Your task to perform on an android device: turn on the 24-hour format for clock Image 0: 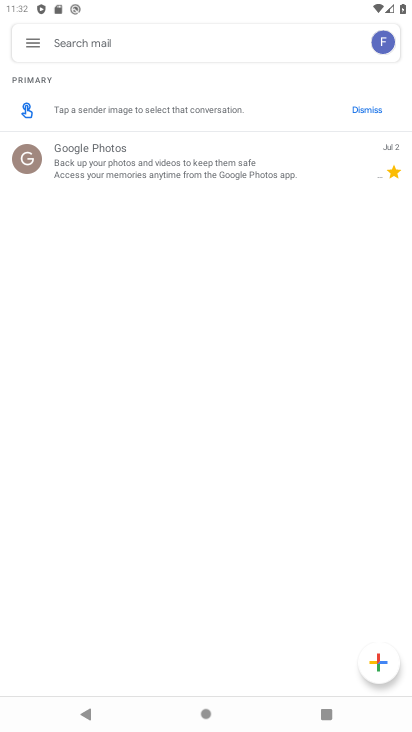
Step 0: press home button
Your task to perform on an android device: turn on the 24-hour format for clock Image 1: 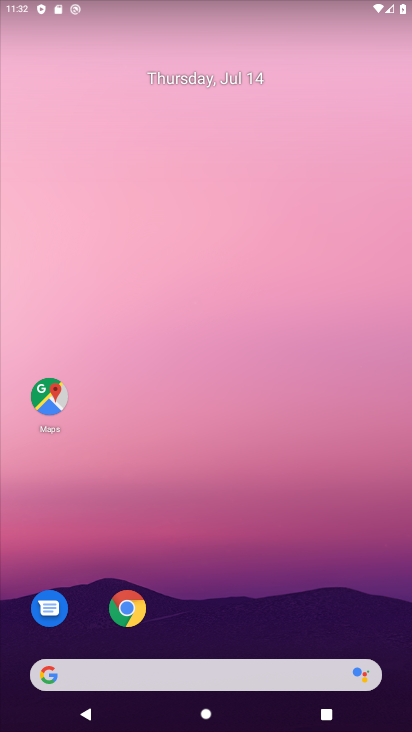
Step 1: drag from (15, 706) to (260, 22)
Your task to perform on an android device: turn on the 24-hour format for clock Image 2: 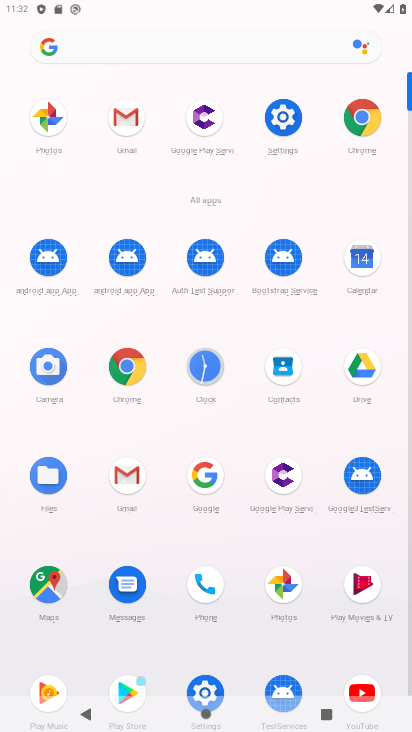
Step 2: click (210, 372)
Your task to perform on an android device: turn on the 24-hour format for clock Image 3: 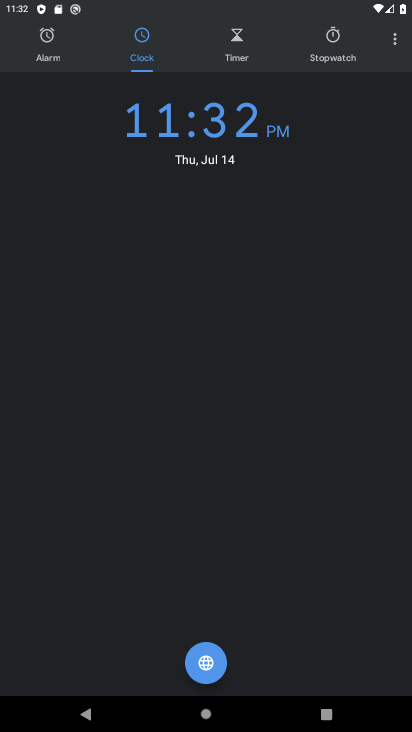
Step 3: click (394, 46)
Your task to perform on an android device: turn on the 24-hour format for clock Image 4: 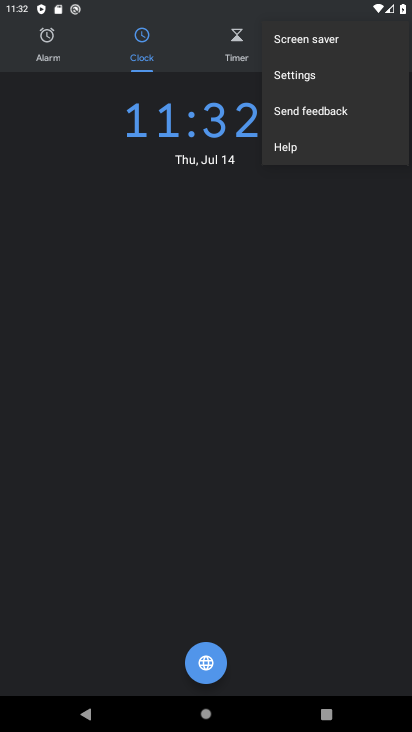
Step 4: click (299, 84)
Your task to perform on an android device: turn on the 24-hour format for clock Image 5: 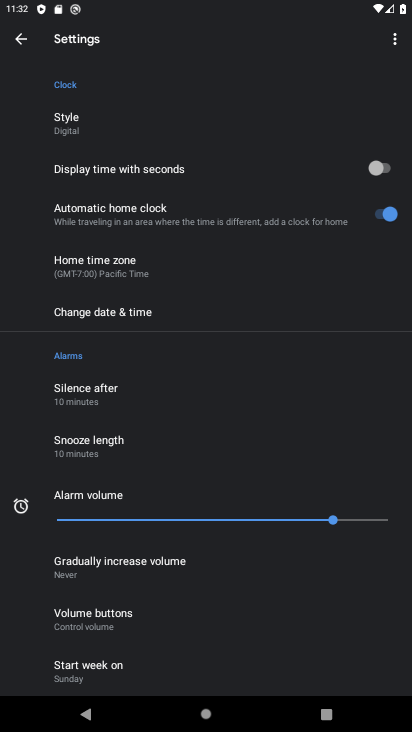
Step 5: click (119, 317)
Your task to perform on an android device: turn on the 24-hour format for clock Image 6: 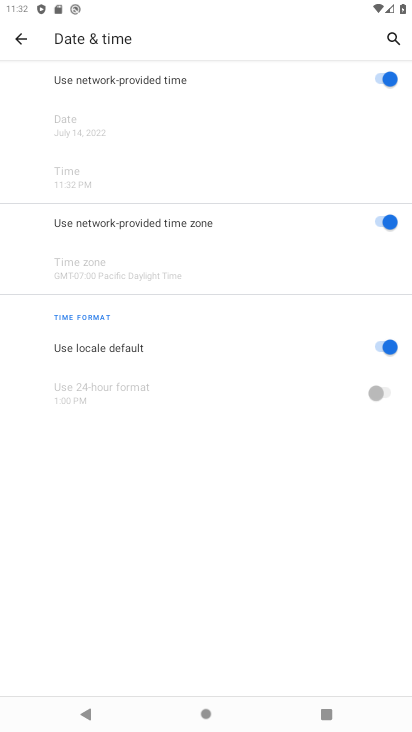
Step 6: click (390, 341)
Your task to perform on an android device: turn on the 24-hour format for clock Image 7: 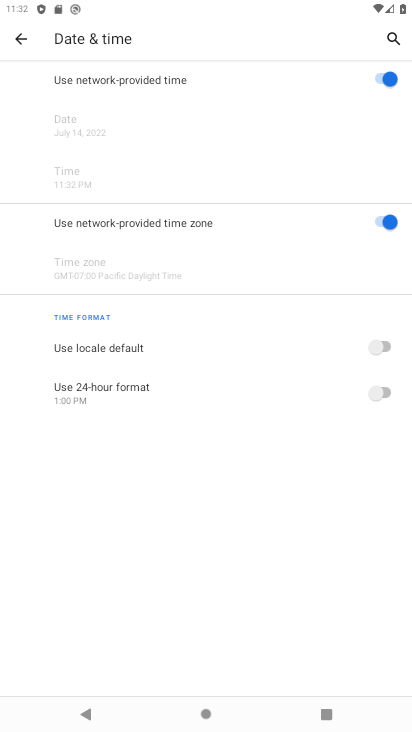
Step 7: click (369, 389)
Your task to perform on an android device: turn on the 24-hour format for clock Image 8: 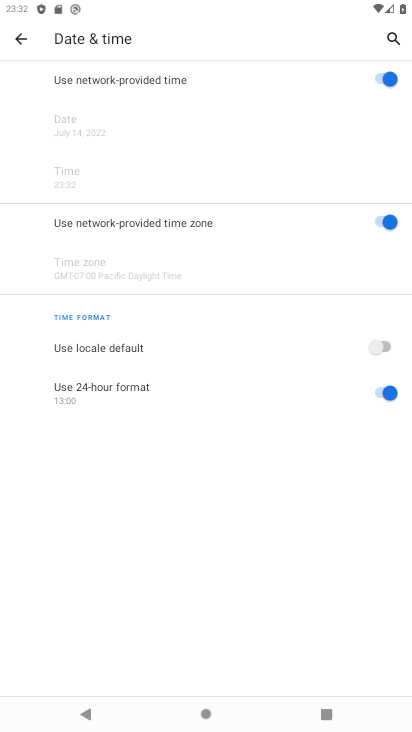
Step 8: task complete